Your task to perform on an android device: Open Google Chrome and click the shortcut for Amazon.com Image 0: 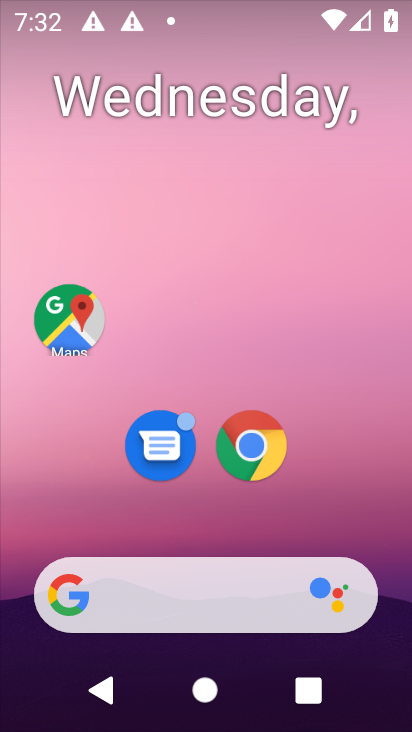
Step 0: click (235, 443)
Your task to perform on an android device: Open Google Chrome and click the shortcut for Amazon.com Image 1: 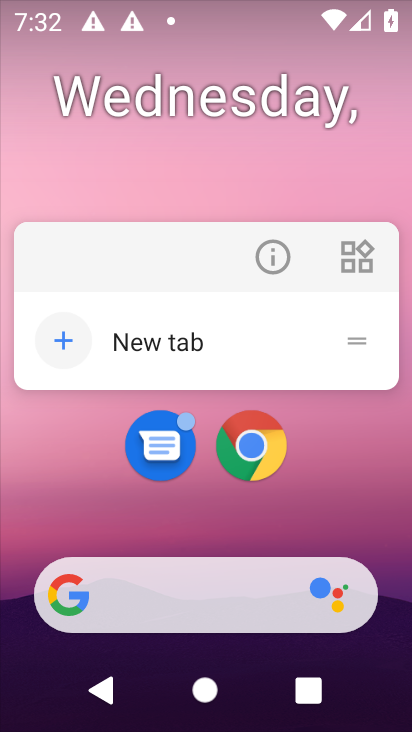
Step 1: click (240, 449)
Your task to perform on an android device: Open Google Chrome and click the shortcut for Amazon.com Image 2: 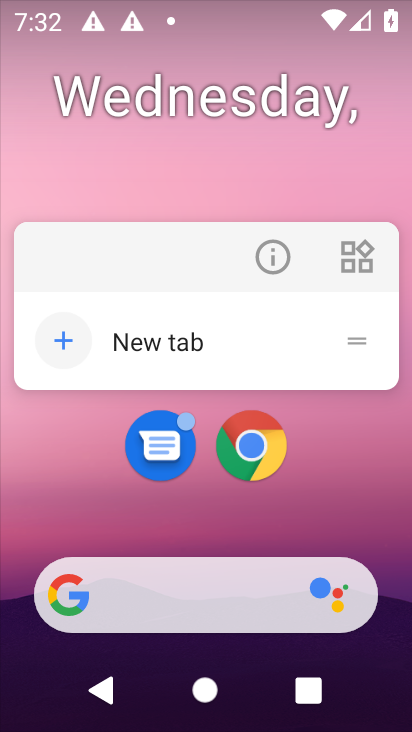
Step 2: click (250, 459)
Your task to perform on an android device: Open Google Chrome and click the shortcut for Amazon.com Image 3: 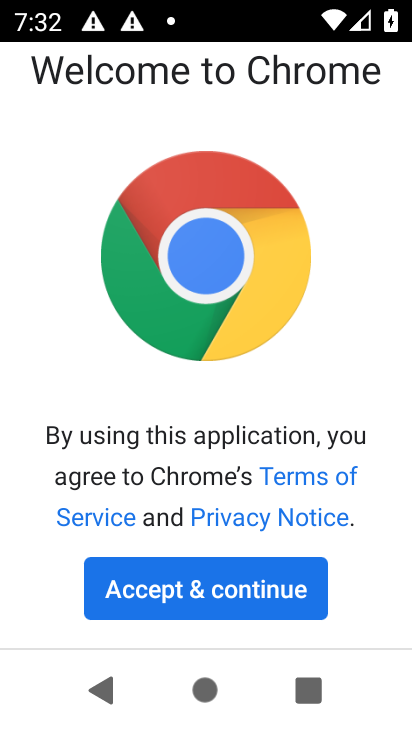
Step 3: click (205, 588)
Your task to perform on an android device: Open Google Chrome and click the shortcut for Amazon.com Image 4: 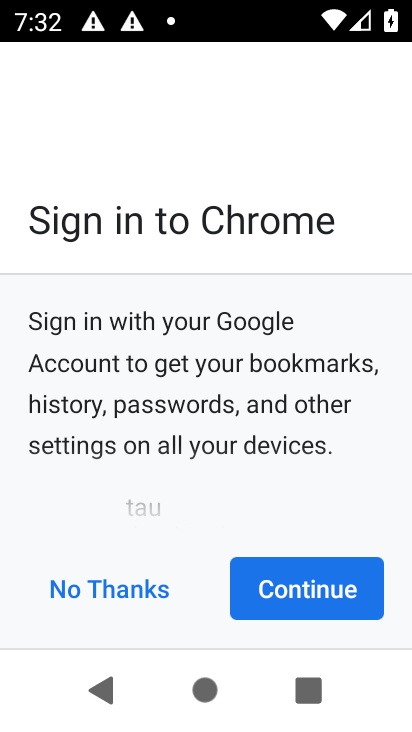
Step 4: click (245, 591)
Your task to perform on an android device: Open Google Chrome and click the shortcut for Amazon.com Image 5: 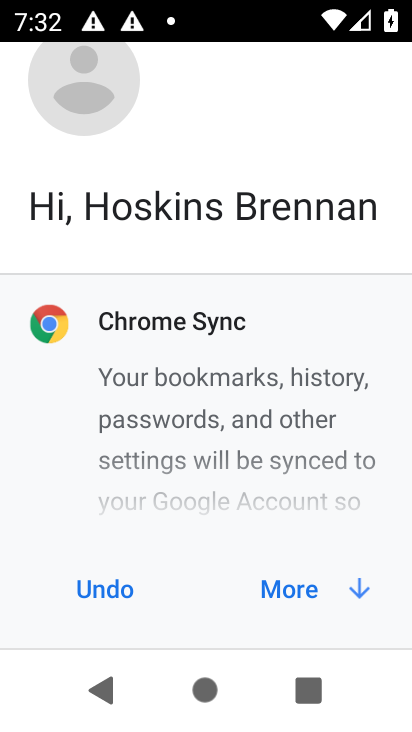
Step 5: click (295, 595)
Your task to perform on an android device: Open Google Chrome and click the shortcut for Amazon.com Image 6: 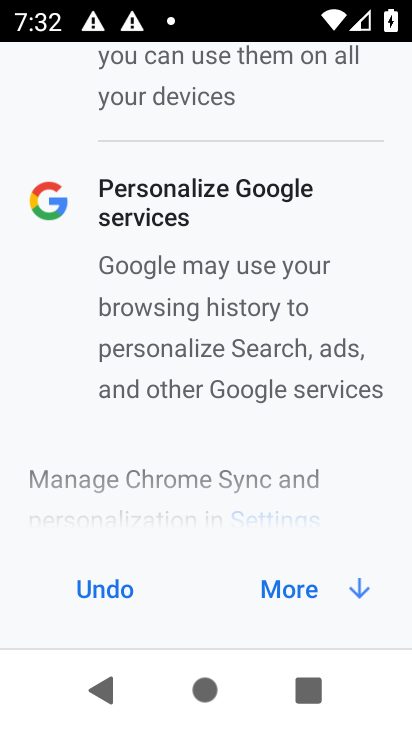
Step 6: click (295, 595)
Your task to perform on an android device: Open Google Chrome and click the shortcut for Amazon.com Image 7: 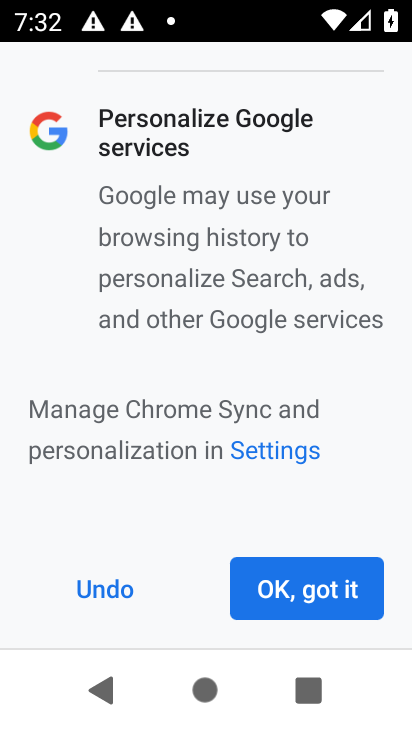
Step 7: click (295, 595)
Your task to perform on an android device: Open Google Chrome and click the shortcut for Amazon.com Image 8: 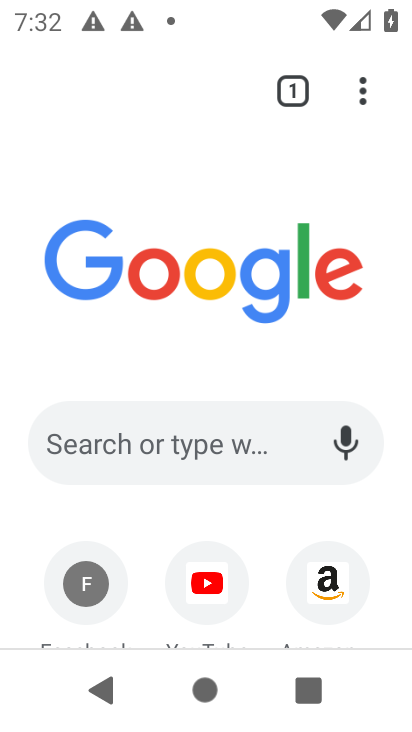
Step 8: drag from (262, 593) to (312, 294)
Your task to perform on an android device: Open Google Chrome and click the shortcut for Amazon.com Image 9: 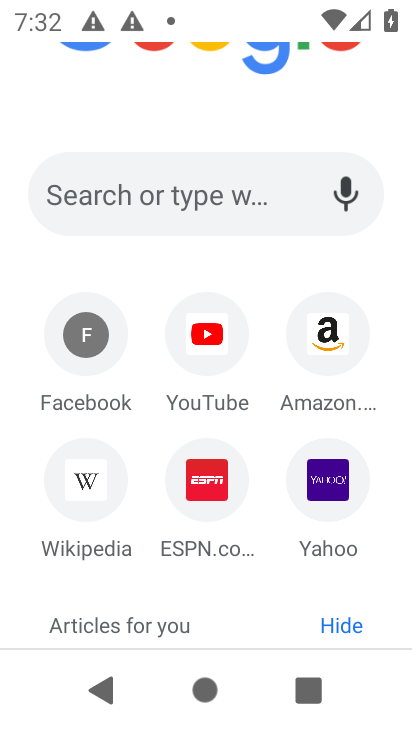
Step 9: click (332, 333)
Your task to perform on an android device: Open Google Chrome and click the shortcut for Amazon.com Image 10: 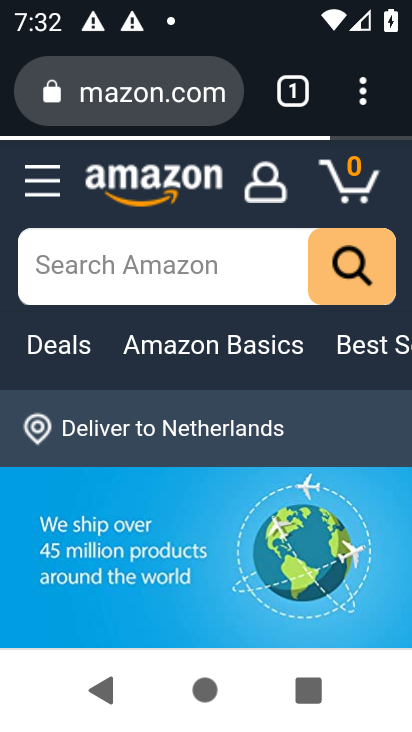
Step 10: task complete